Your task to perform on an android device: What is the recent news? Image 0: 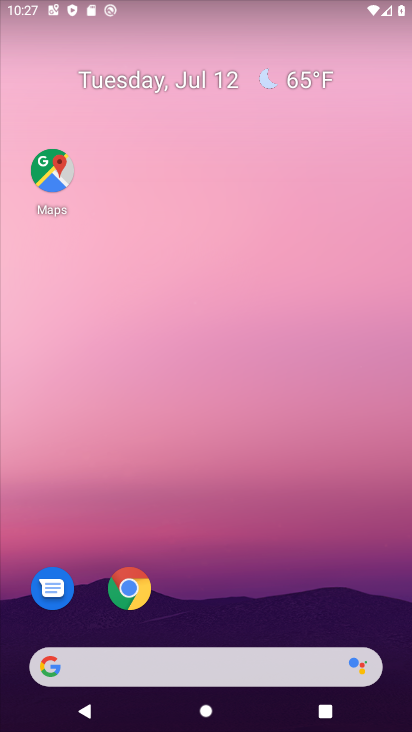
Step 0: click (126, 665)
Your task to perform on an android device: What is the recent news? Image 1: 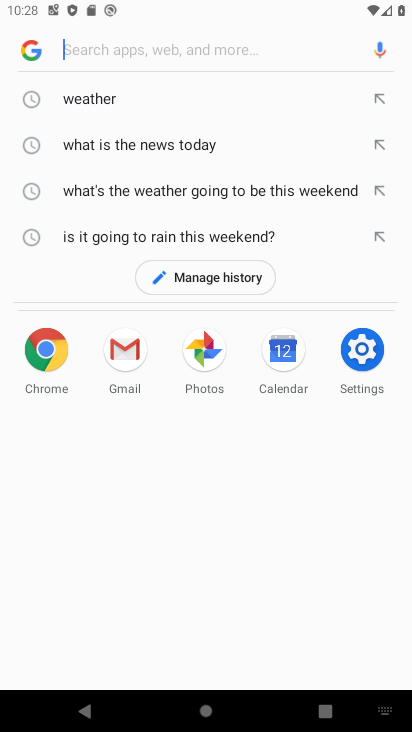
Step 1: type "What is the recent news?"
Your task to perform on an android device: What is the recent news? Image 2: 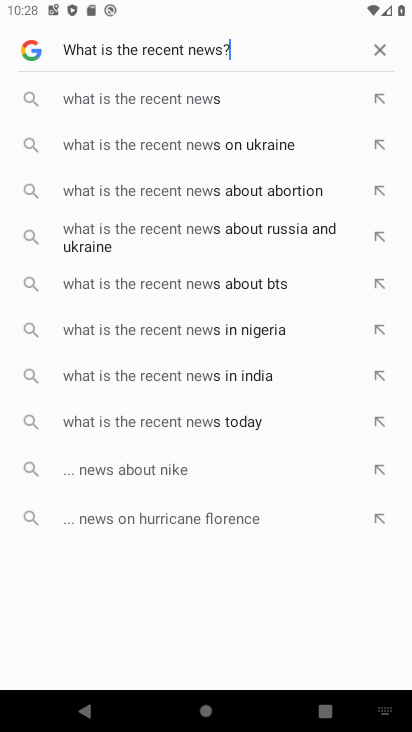
Step 2: type ""
Your task to perform on an android device: What is the recent news? Image 3: 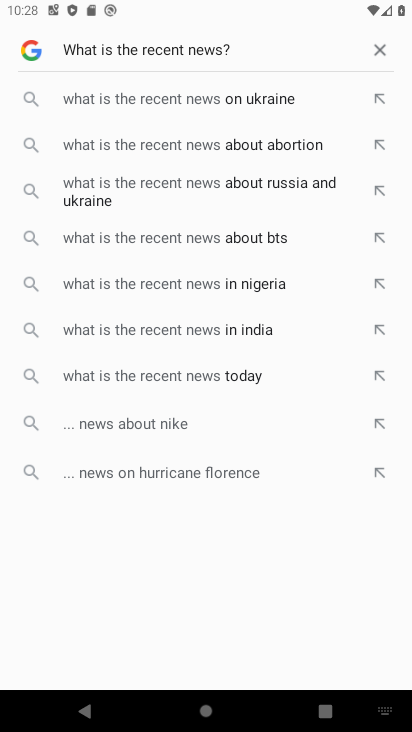
Step 3: type ""
Your task to perform on an android device: What is the recent news? Image 4: 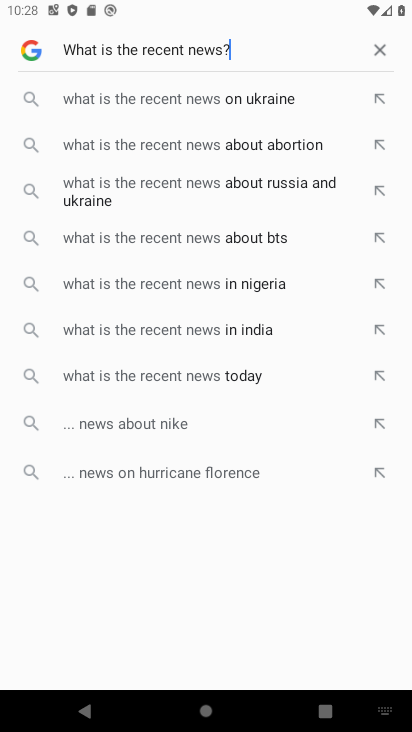
Step 4: type ""
Your task to perform on an android device: What is the recent news? Image 5: 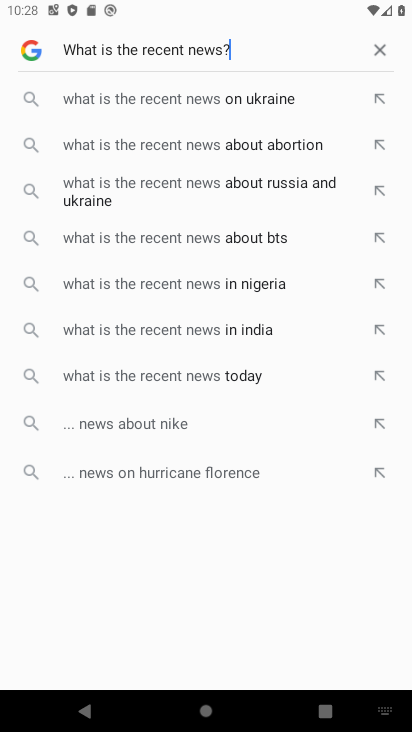
Step 5: type ""
Your task to perform on an android device: What is the recent news? Image 6: 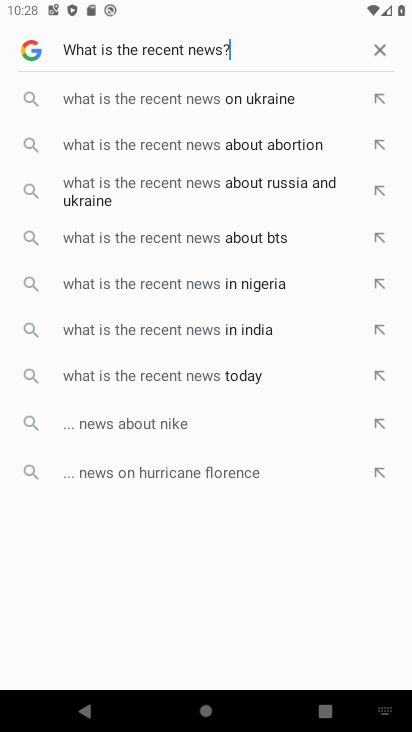
Step 6: task complete